Your task to perform on an android device: turn off data saver in the chrome app Image 0: 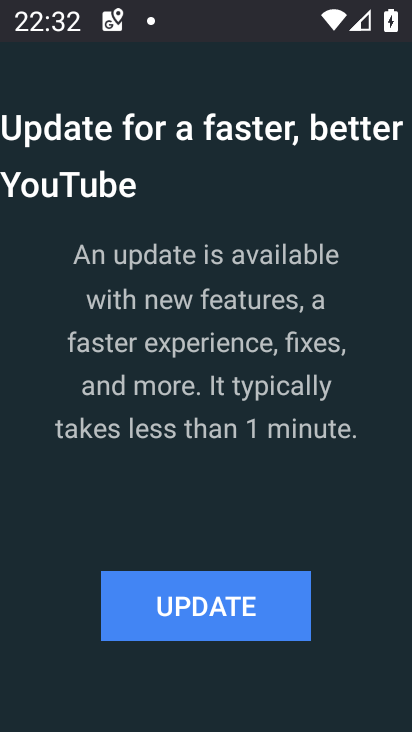
Step 0: press home button
Your task to perform on an android device: turn off data saver in the chrome app Image 1: 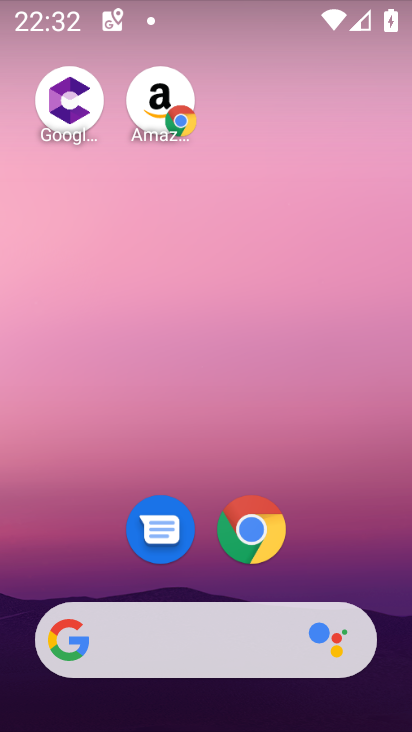
Step 1: drag from (65, 525) to (121, 7)
Your task to perform on an android device: turn off data saver in the chrome app Image 2: 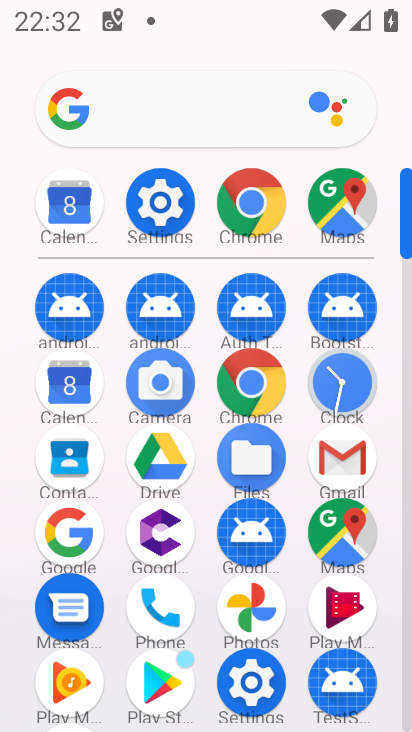
Step 2: click (259, 366)
Your task to perform on an android device: turn off data saver in the chrome app Image 3: 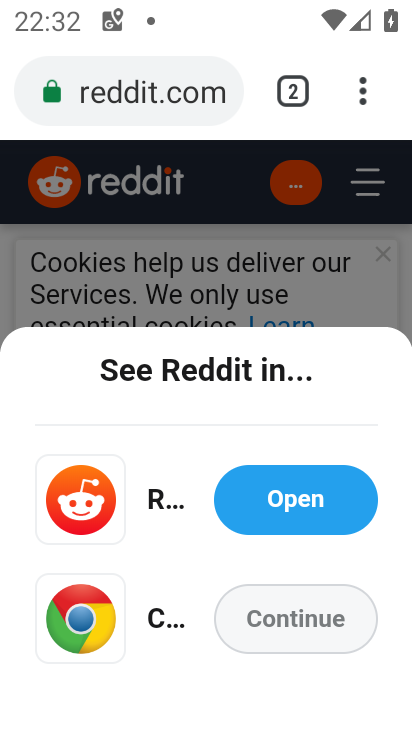
Step 3: drag from (359, 86) to (292, 555)
Your task to perform on an android device: turn off data saver in the chrome app Image 4: 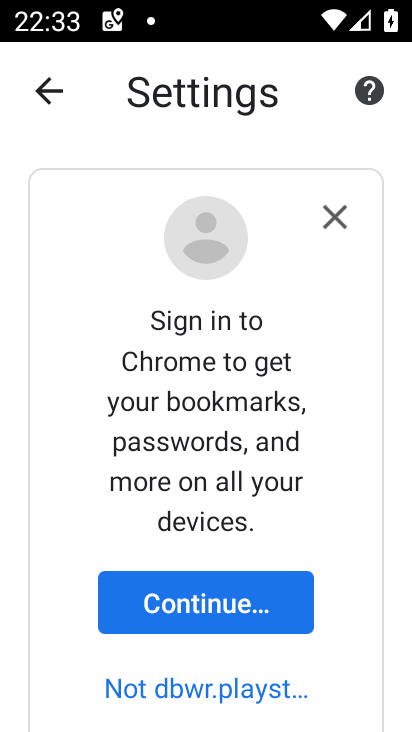
Step 4: drag from (334, 637) to (252, 75)
Your task to perform on an android device: turn off data saver in the chrome app Image 5: 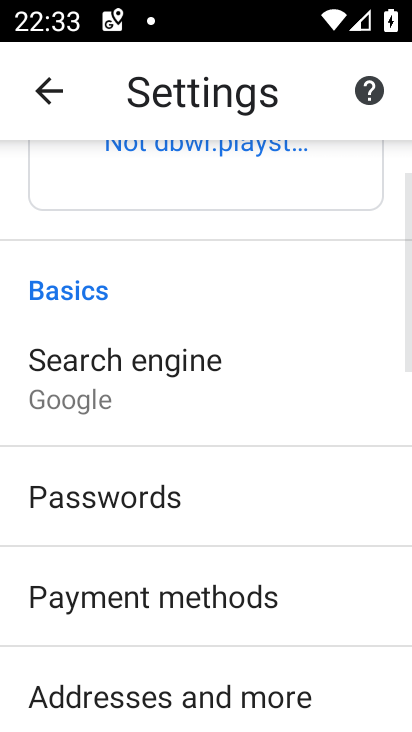
Step 5: drag from (327, 583) to (314, 145)
Your task to perform on an android device: turn off data saver in the chrome app Image 6: 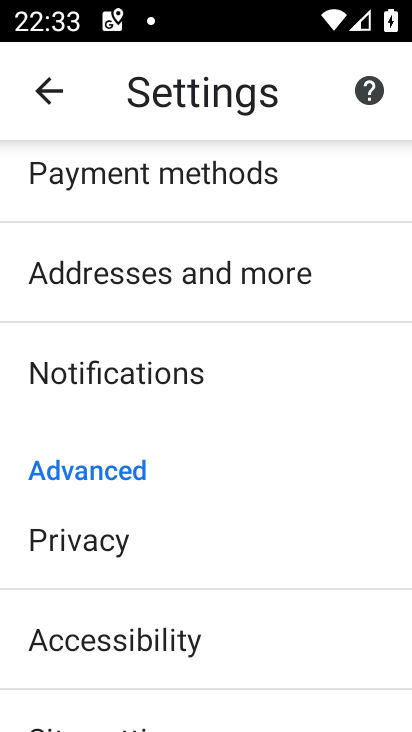
Step 6: drag from (315, 596) to (285, 319)
Your task to perform on an android device: turn off data saver in the chrome app Image 7: 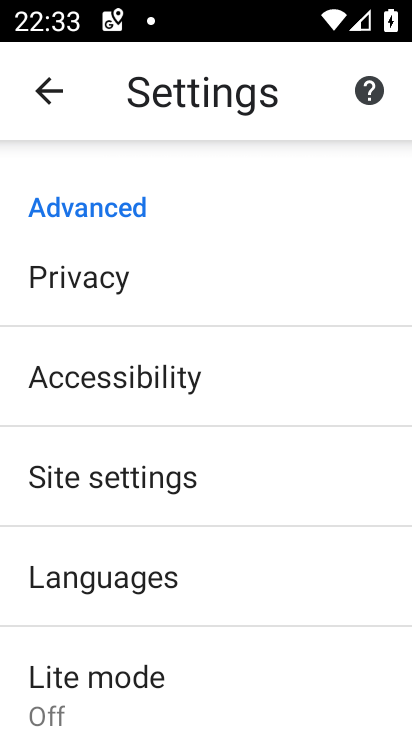
Step 7: click (291, 683)
Your task to perform on an android device: turn off data saver in the chrome app Image 8: 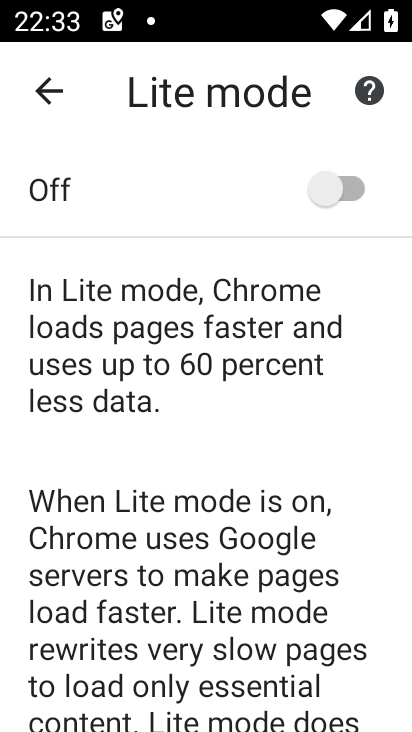
Step 8: task complete